Your task to perform on an android device: Go to location settings Image 0: 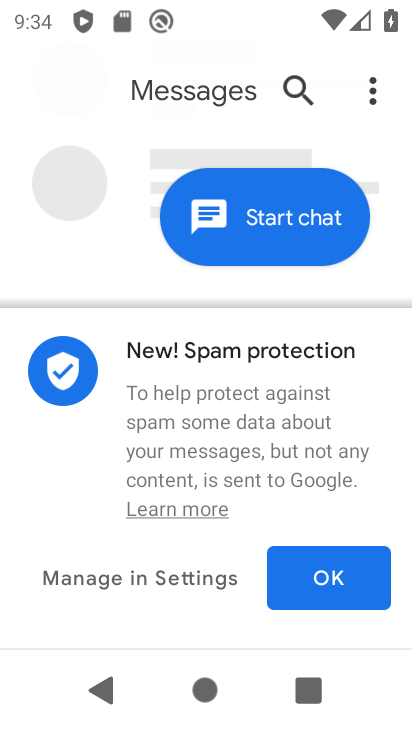
Step 0: press home button
Your task to perform on an android device: Go to location settings Image 1: 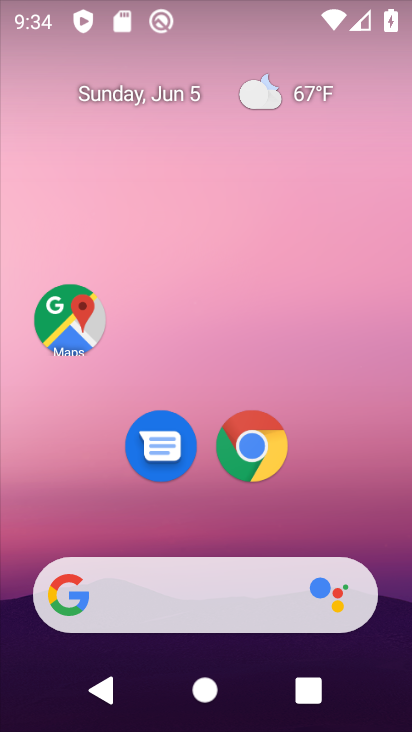
Step 1: drag from (202, 540) to (176, 207)
Your task to perform on an android device: Go to location settings Image 2: 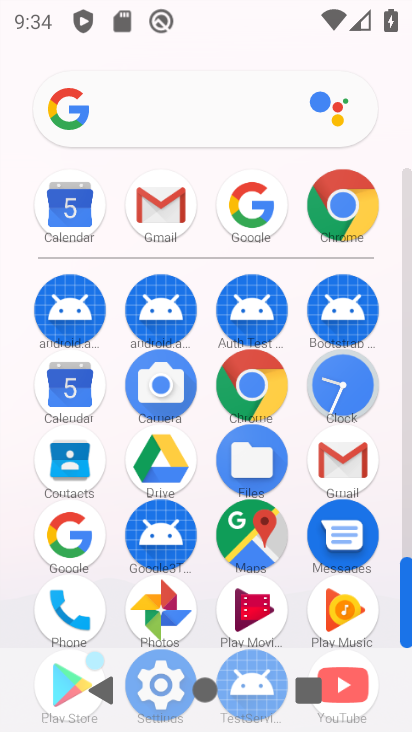
Step 2: drag from (197, 491) to (228, 227)
Your task to perform on an android device: Go to location settings Image 3: 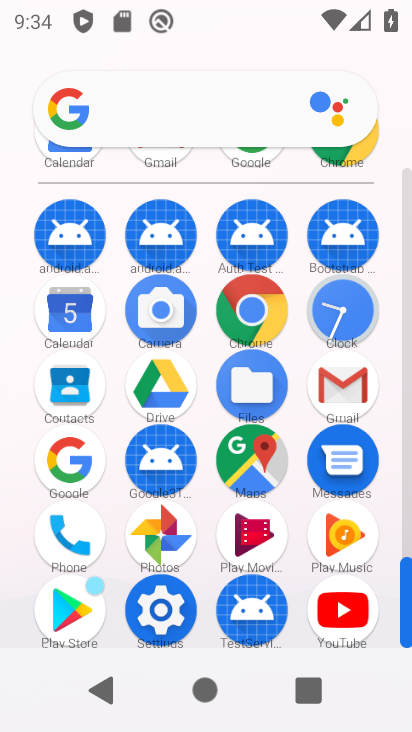
Step 3: click (170, 602)
Your task to perform on an android device: Go to location settings Image 4: 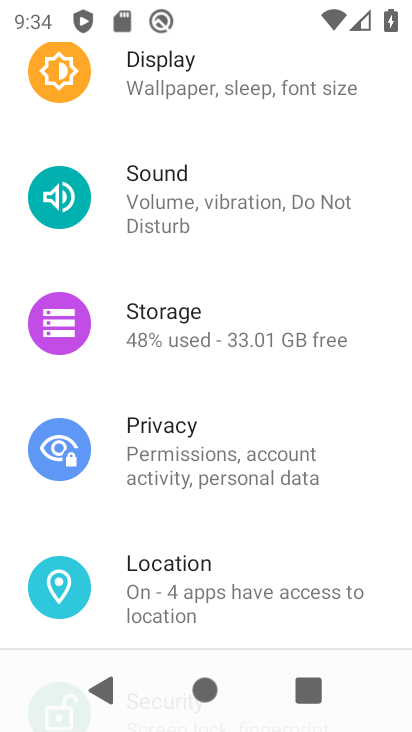
Step 4: click (237, 566)
Your task to perform on an android device: Go to location settings Image 5: 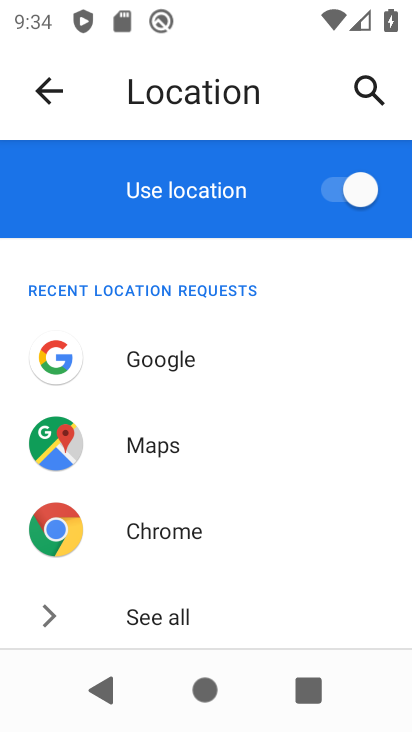
Step 5: task complete